Your task to perform on an android device: Open settings on Google Maps Image 0: 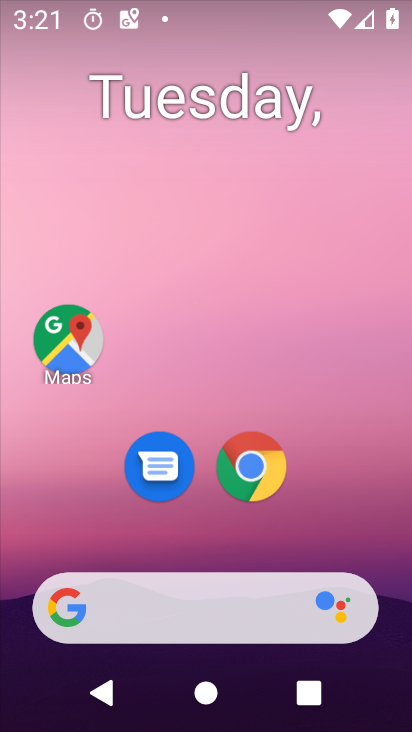
Step 0: drag from (338, 520) to (348, 190)
Your task to perform on an android device: Open settings on Google Maps Image 1: 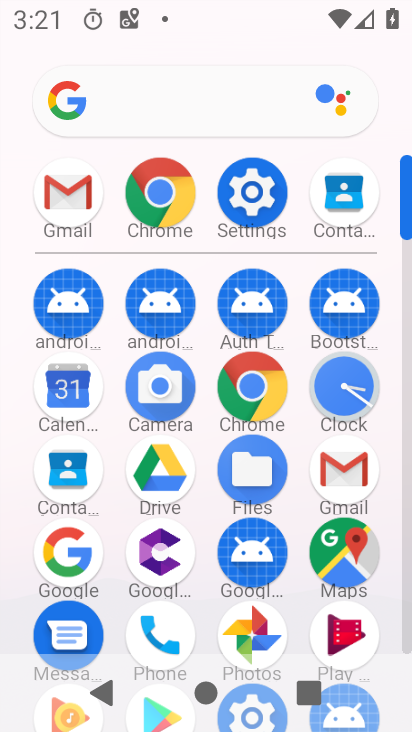
Step 1: click (351, 538)
Your task to perform on an android device: Open settings on Google Maps Image 2: 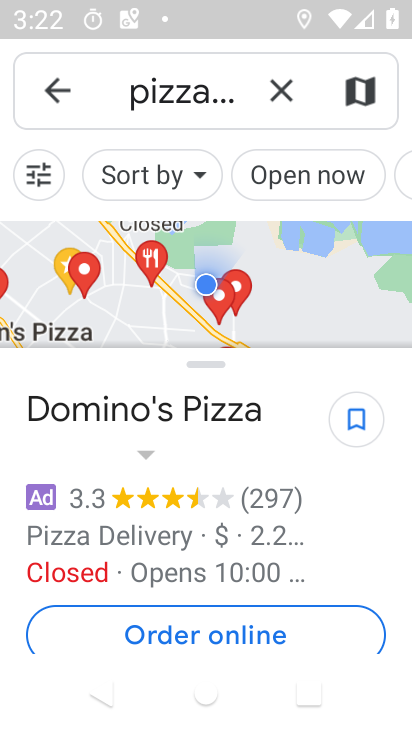
Step 2: click (64, 94)
Your task to perform on an android device: Open settings on Google Maps Image 3: 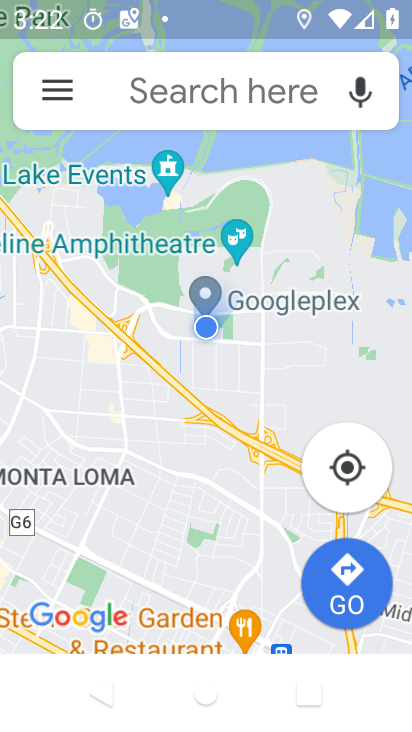
Step 3: click (64, 94)
Your task to perform on an android device: Open settings on Google Maps Image 4: 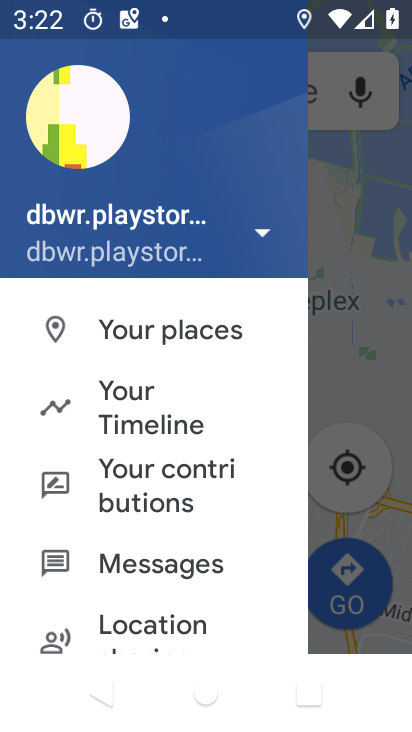
Step 4: drag from (244, 597) to (244, 367)
Your task to perform on an android device: Open settings on Google Maps Image 5: 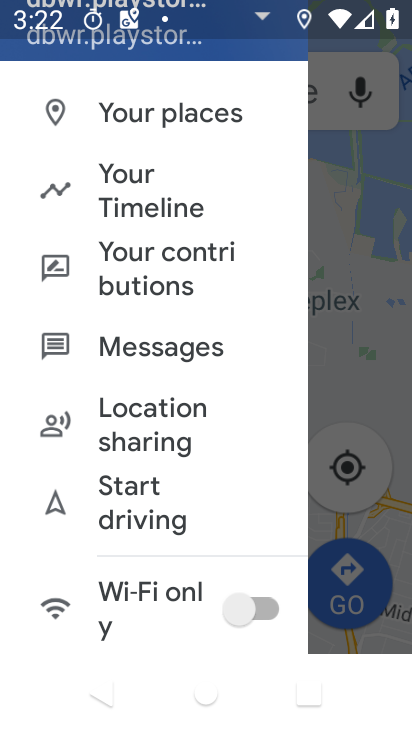
Step 5: drag from (222, 503) to (246, 326)
Your task to perform on an android device: Open settings on Google Maps Image 6: 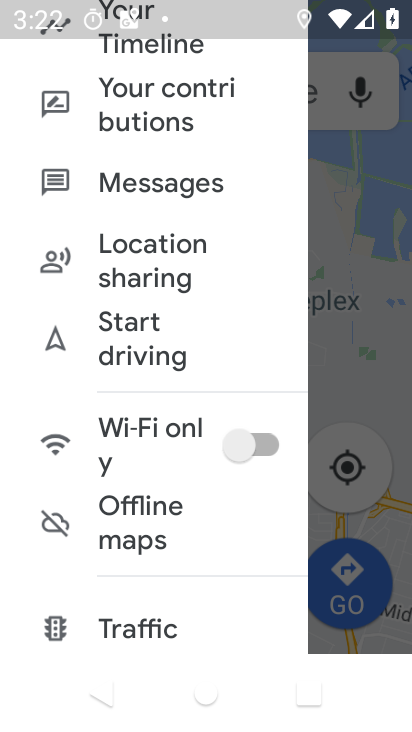
Step 6: drag from (240, 551) to (248, 306)
Your task to perform on an android device: Open settings on Google Maps Image 7: 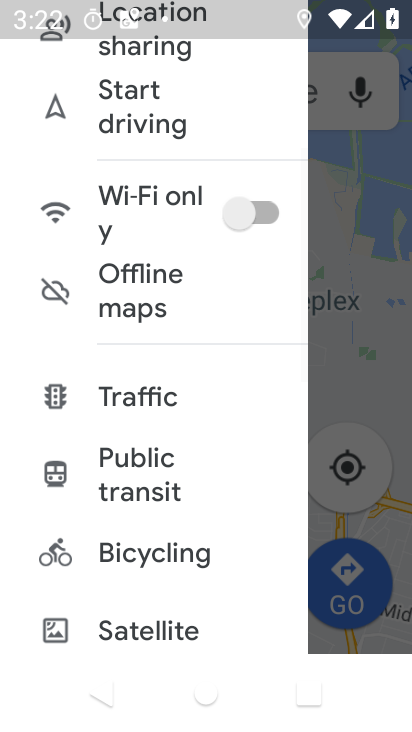
Step 7: drag from (233, 550) to (238, 392)
Your task to perform on an android device: Open settings on Google Maps Image 8: 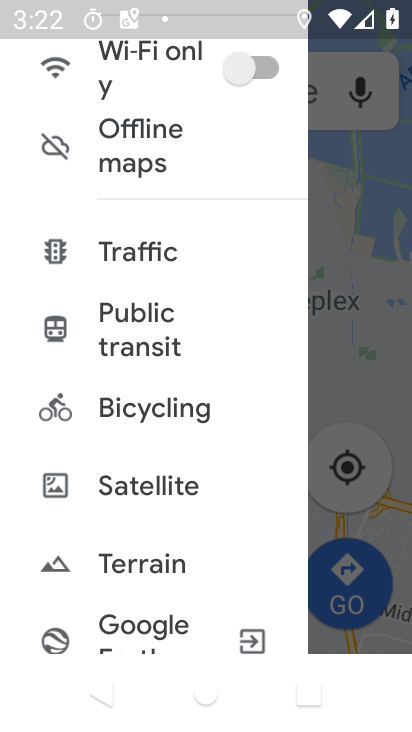
Step 8: drag from (239, 525) to (251, 325)
Your task to perform on an android device: Open settings on Google Maps Image 9: 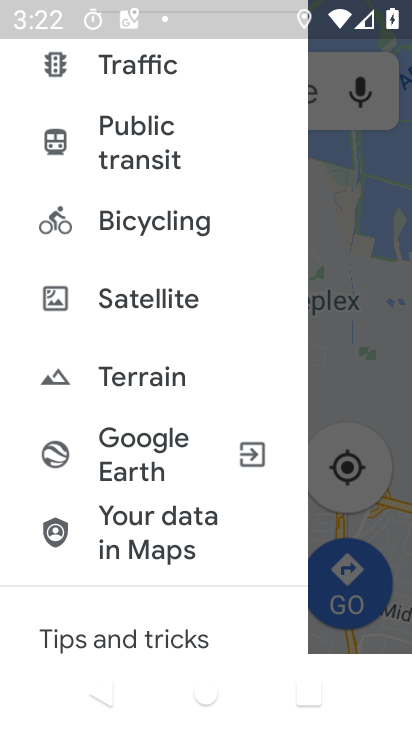
Step 9: drag from (232, 525) to (214, 307)
Your task to perform on an android device: Open settings on Google Maps Image 10: 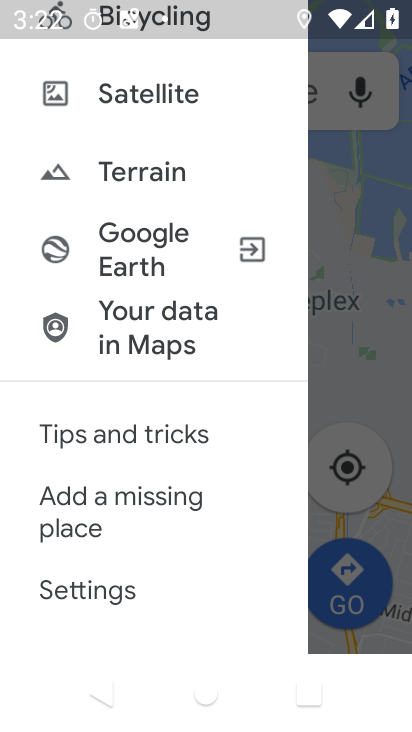
Step 10: drag from (195, 517) to (205, 355)
Your task to perform on an android device: Open settings on Google Maps Image 11: 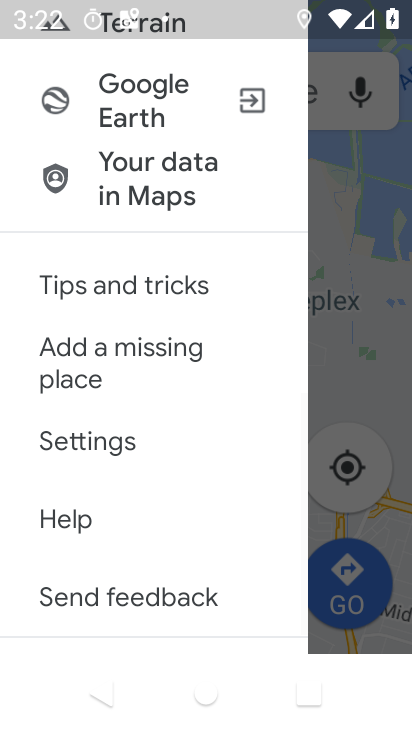
Step 11: click (127, 439)
Your task to perform on an android device: Open settings on Google Maps Image 12: 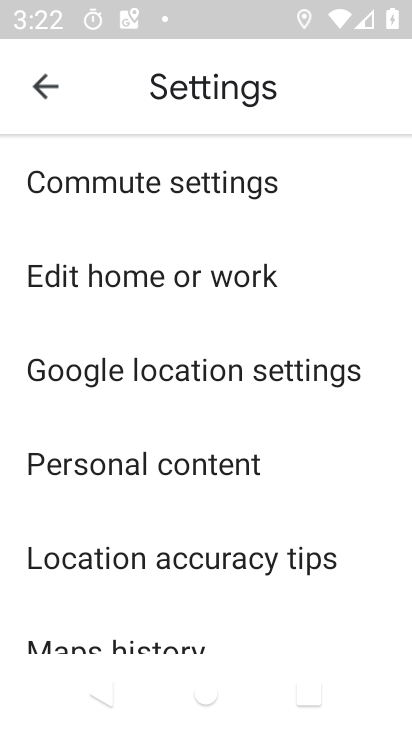
Step 12: task complete